Your task to perform on an android device: find photos in the google photos app Image 0: 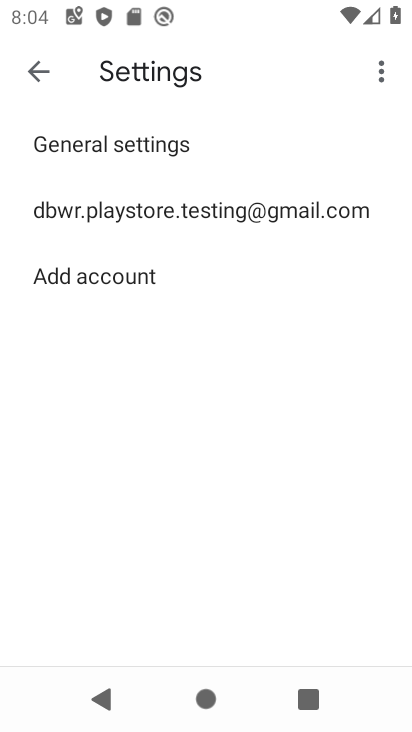
Step 0: press home button
Your task to perform on an android device: find photos in the google photos app Image 1: 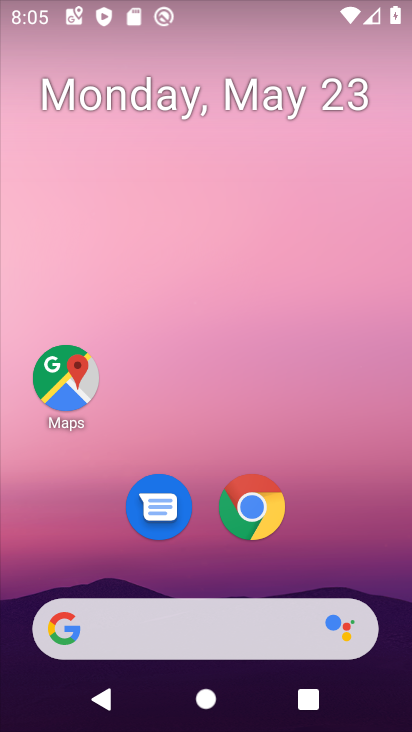
Step 1: drag from (362, 492) to (323, 135)
Your task to perform on an android device: find photos in the google photos app Image 2: 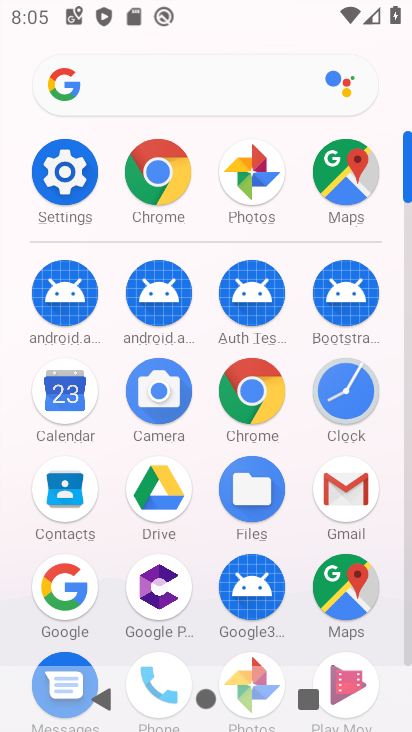
Step 2: click (247, 661)
Your task to perform on an android device: find photos in the google photos app Image 3: 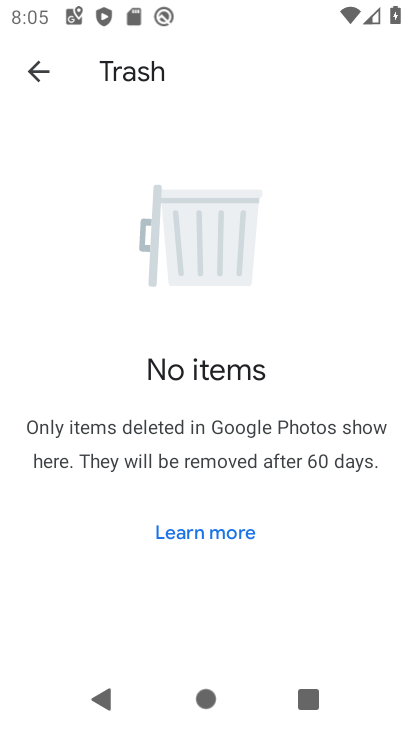
Step 3: click (29, 49)
Your task to perform on an android device: find photos in the google photos app Image 4: 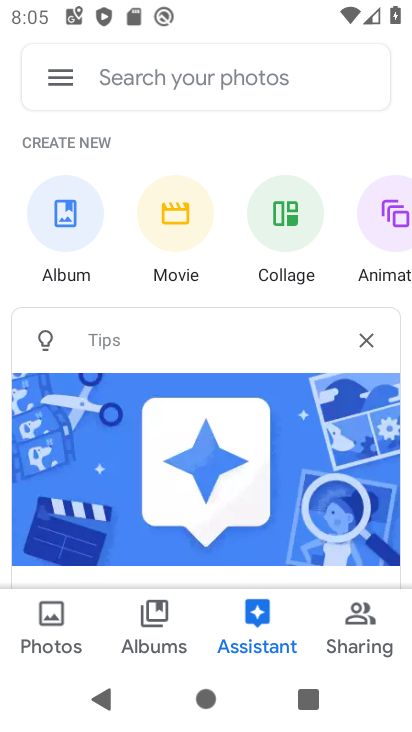
Step 4: click (56, 633)
Your task to perform on an android device: find photos in the google photos app Image 5: 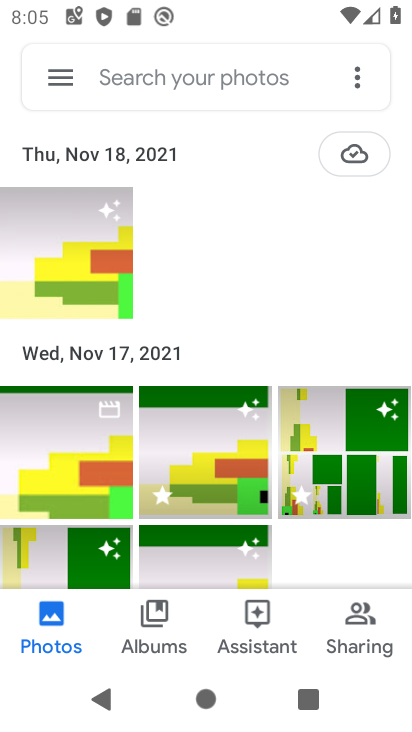
Step 5: task complete